Your task to perform on an android device: What's the weather going to be tomorrow? Image 0: 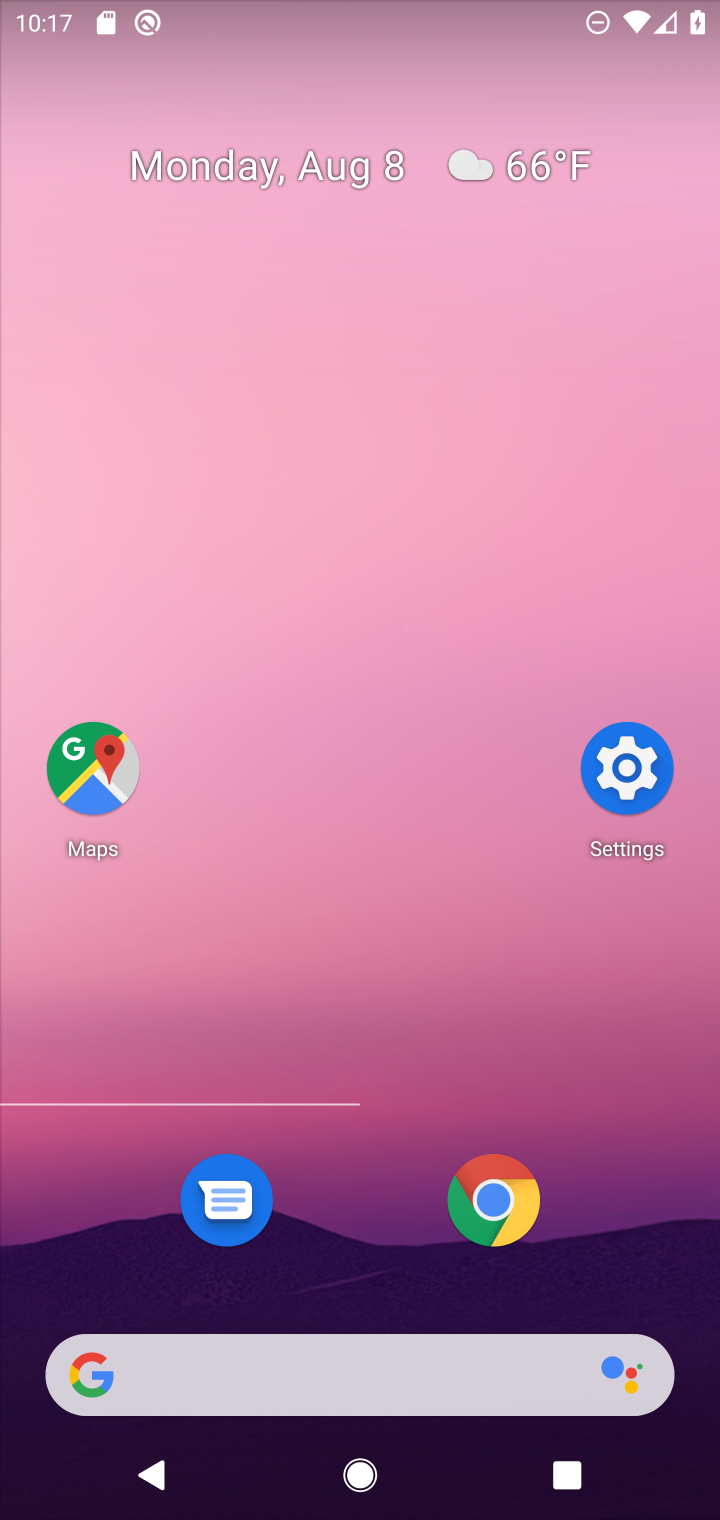
Step 0: click (239, 1361)
Your task to perform on an android device: What's the weather going to be tomorrow? Image 1: 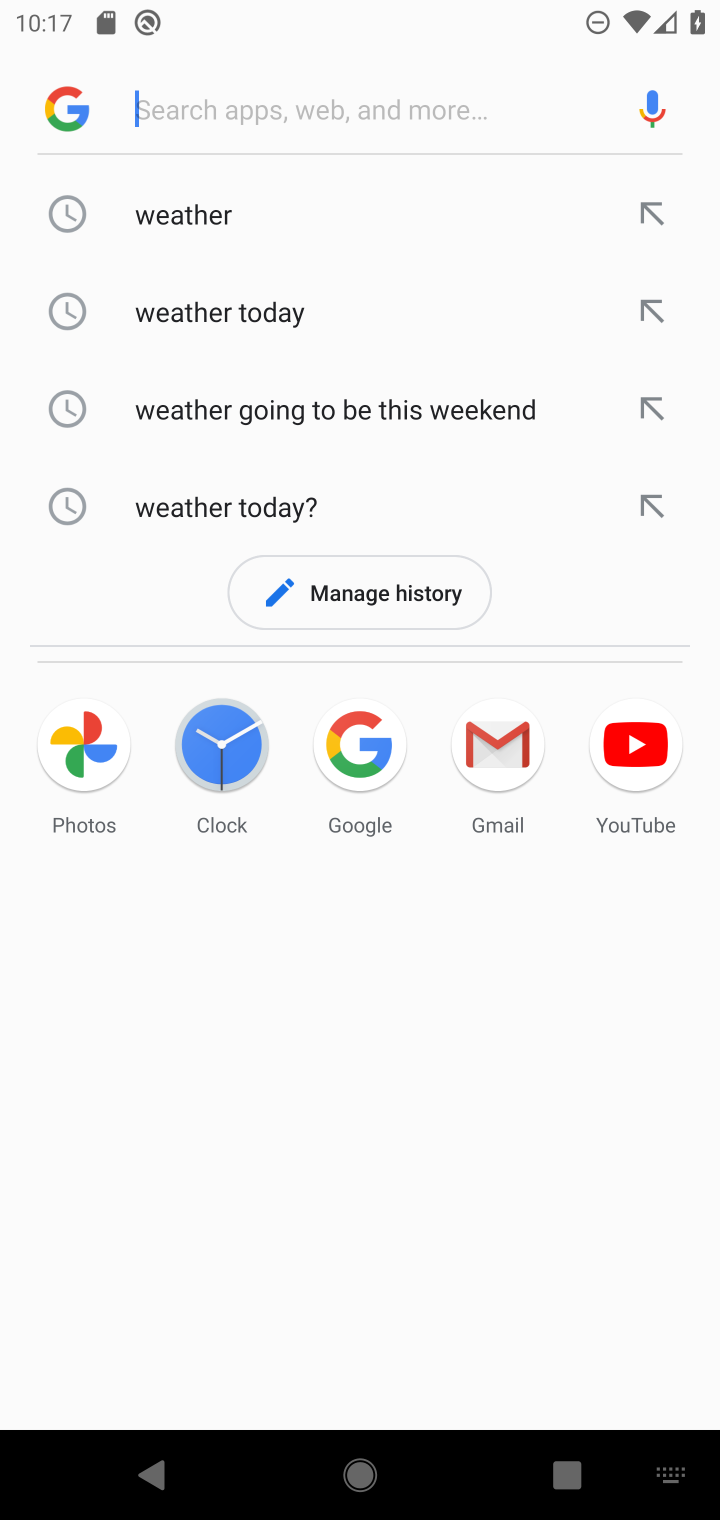
Step 1: click (650, 201)
Your task to perform on an android device: What's the weather going to be tomorrow? Image 2: 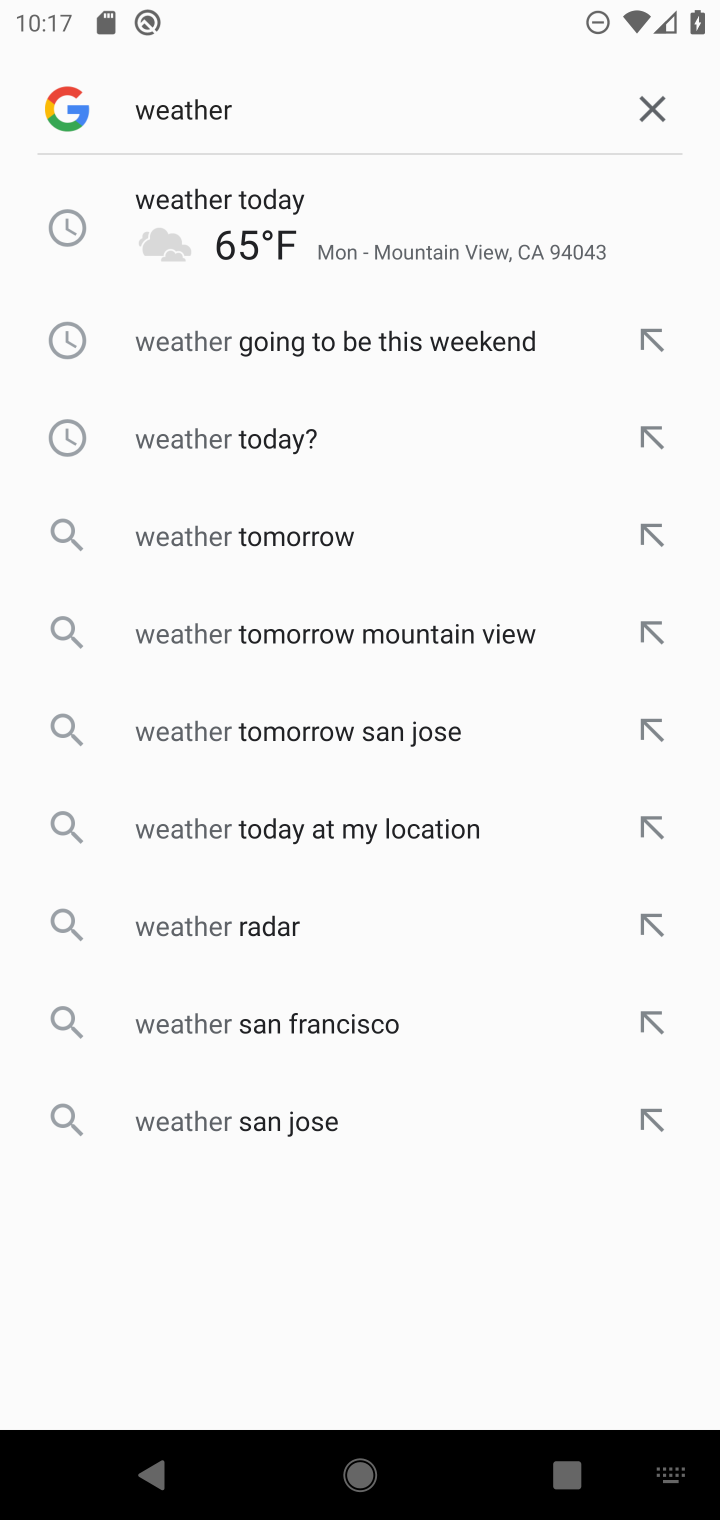
Step 2: click (330, 230)
Your task to perform on an android device: What's the weather going to be tomorrow? Image 3: 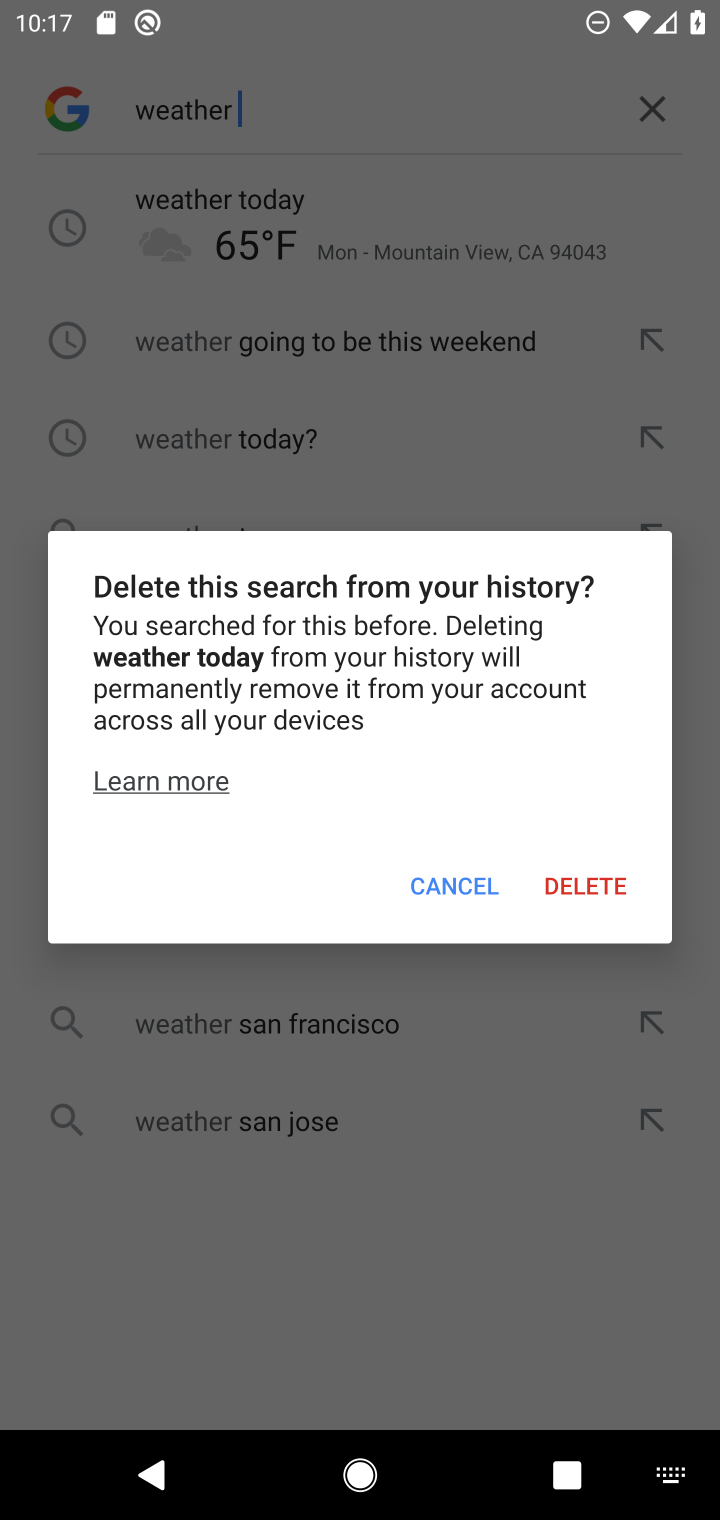
Step 3: click (456, 881)
Your task to perform on an android device: What's the weather going to be tomorrow? Image 4: 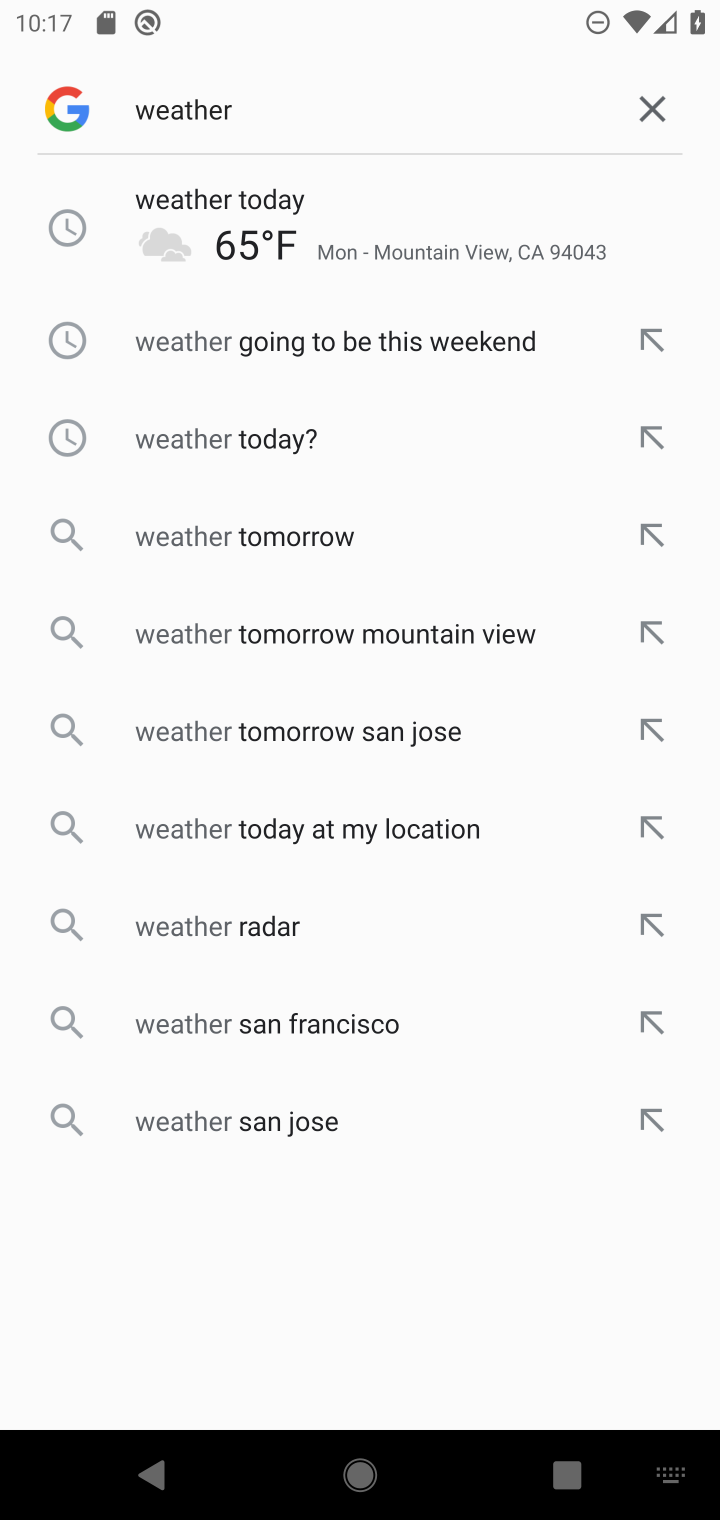
Step 4: click (654, 431)
Your task to perform on an android device: What's the weather going to be tomorrow? Image 5: 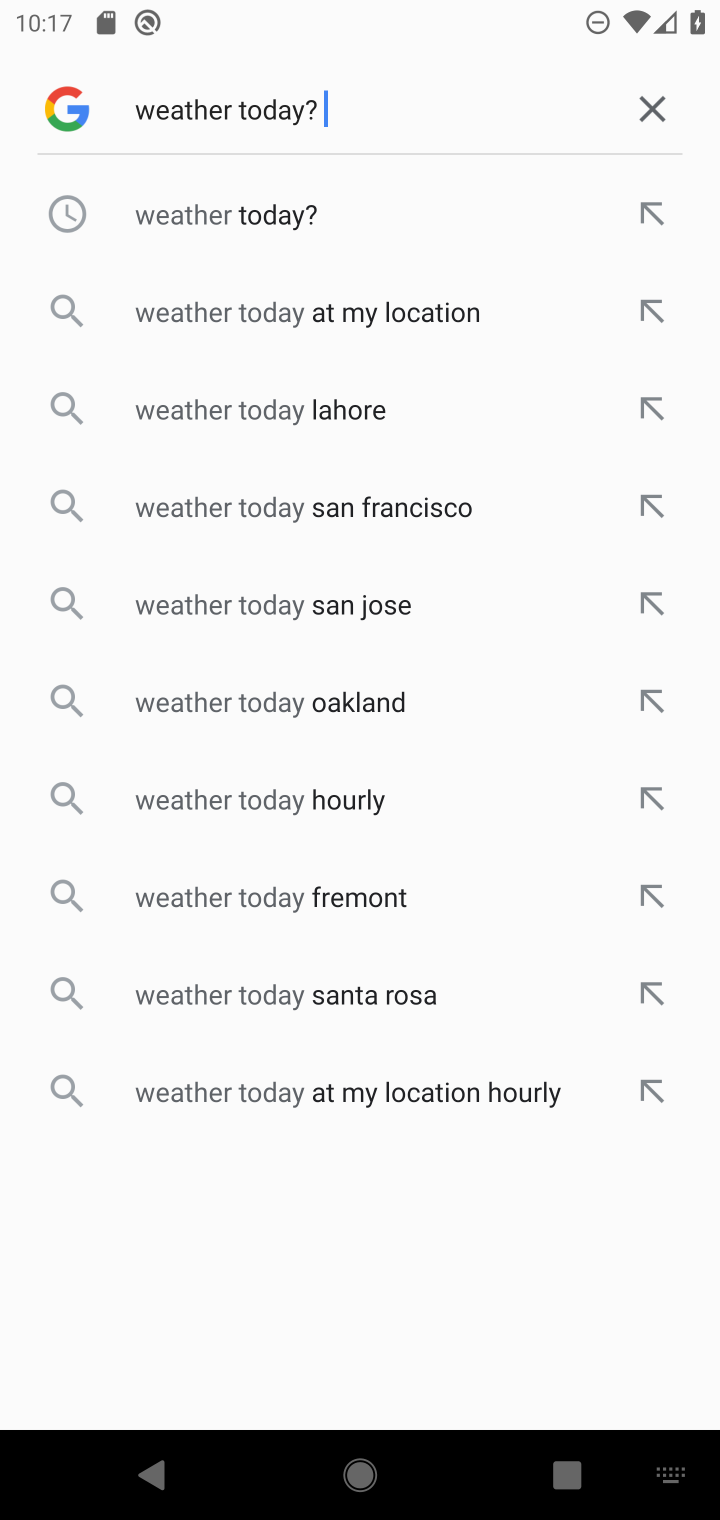
Step 5: click (650, 203)
Your task to perform on an android device: What's the weather going to be tomorrow? Image 6: 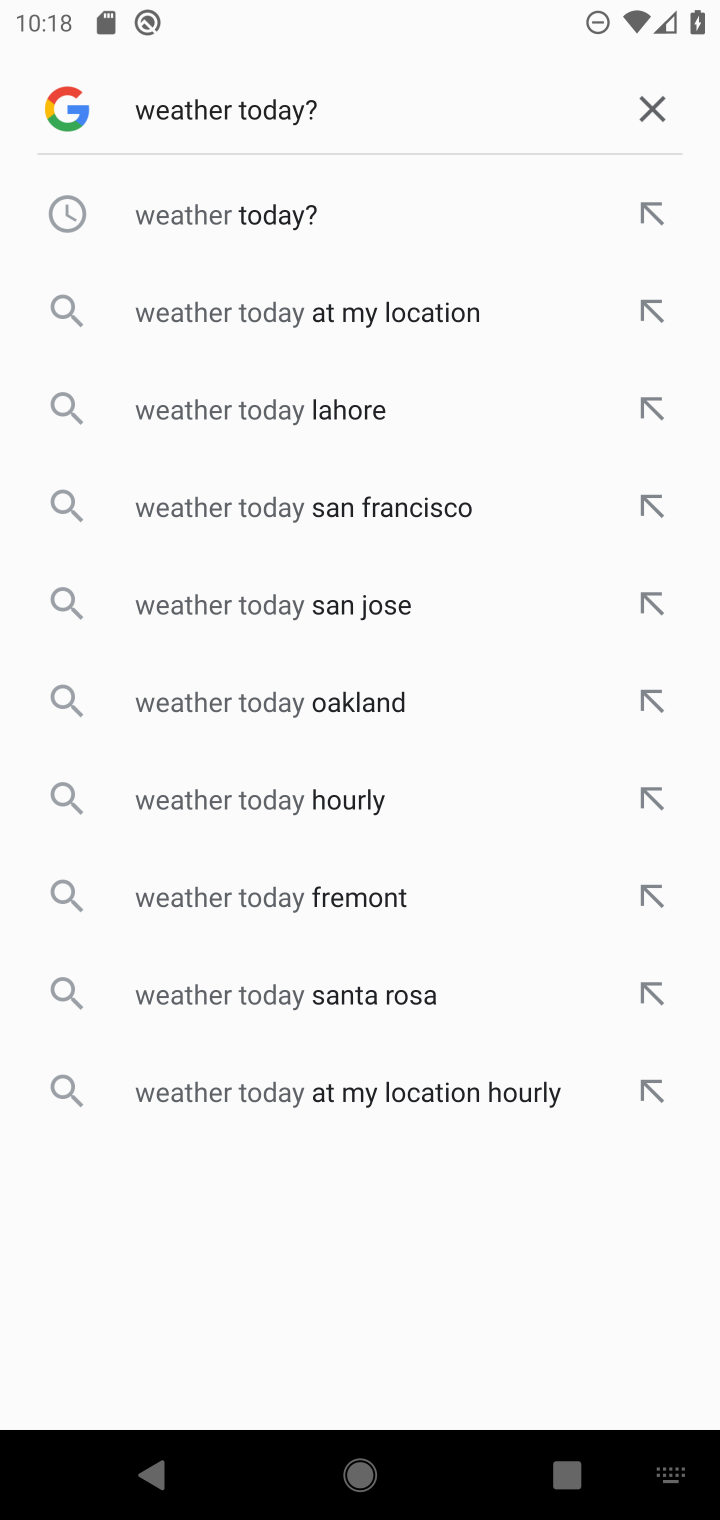
Step 6: click (650, 201)
Your task to perform on an android device: What's the weather going to be tomorrow? Image 7: 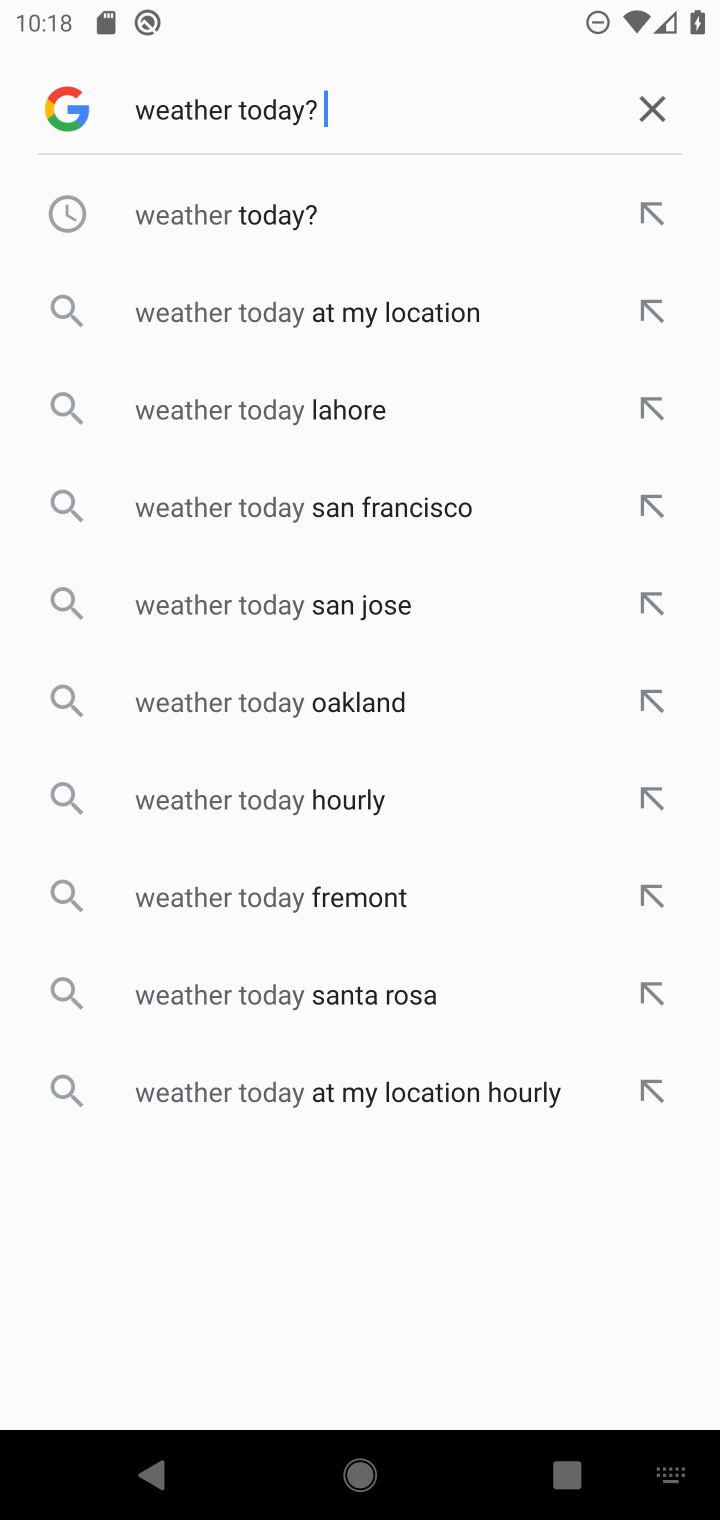
Step 7: click (643, 203)
Your task to perform on an android device: What's the weather going to be tomorrow? Image 8: 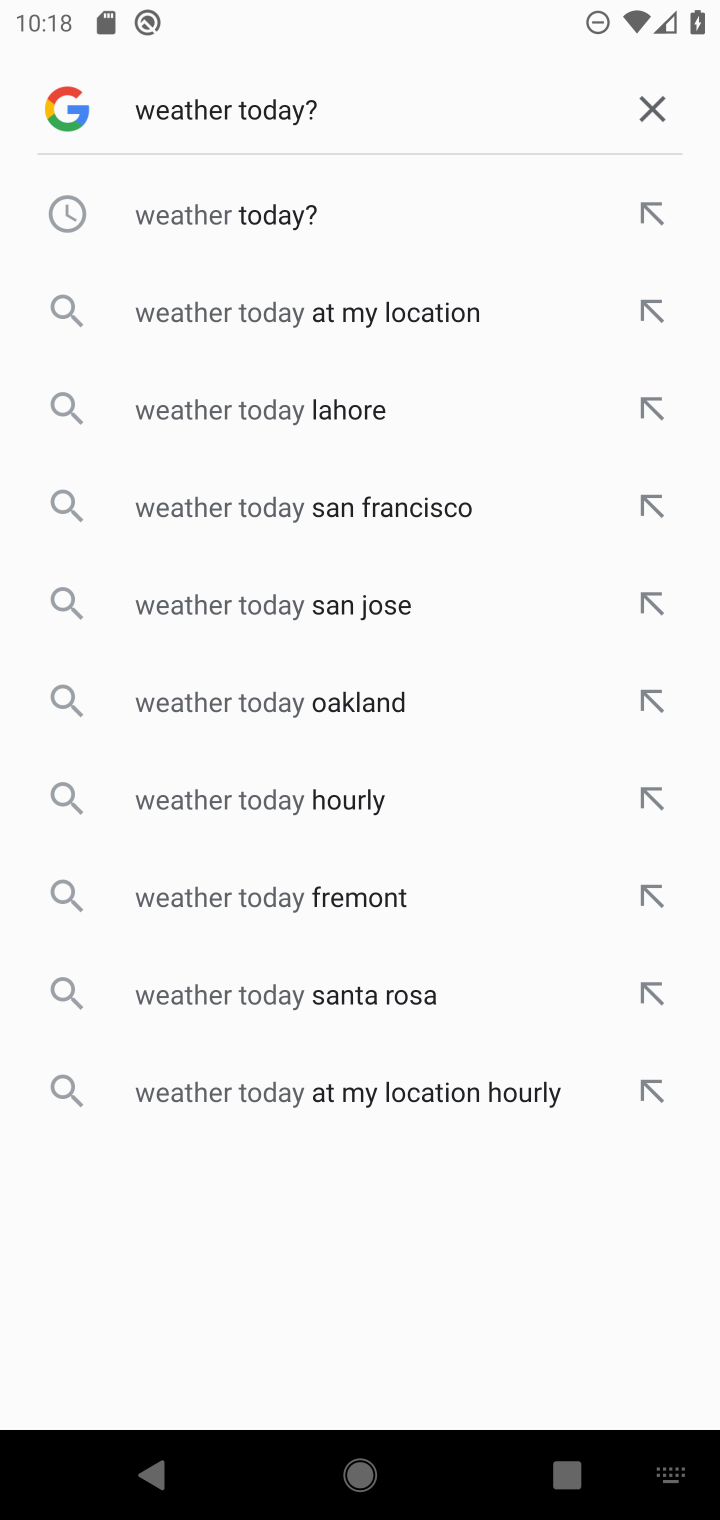
Step 8: click (643, 199)
Your task to perform on an android device: What's the weather going to be tomorrow? Image 9: 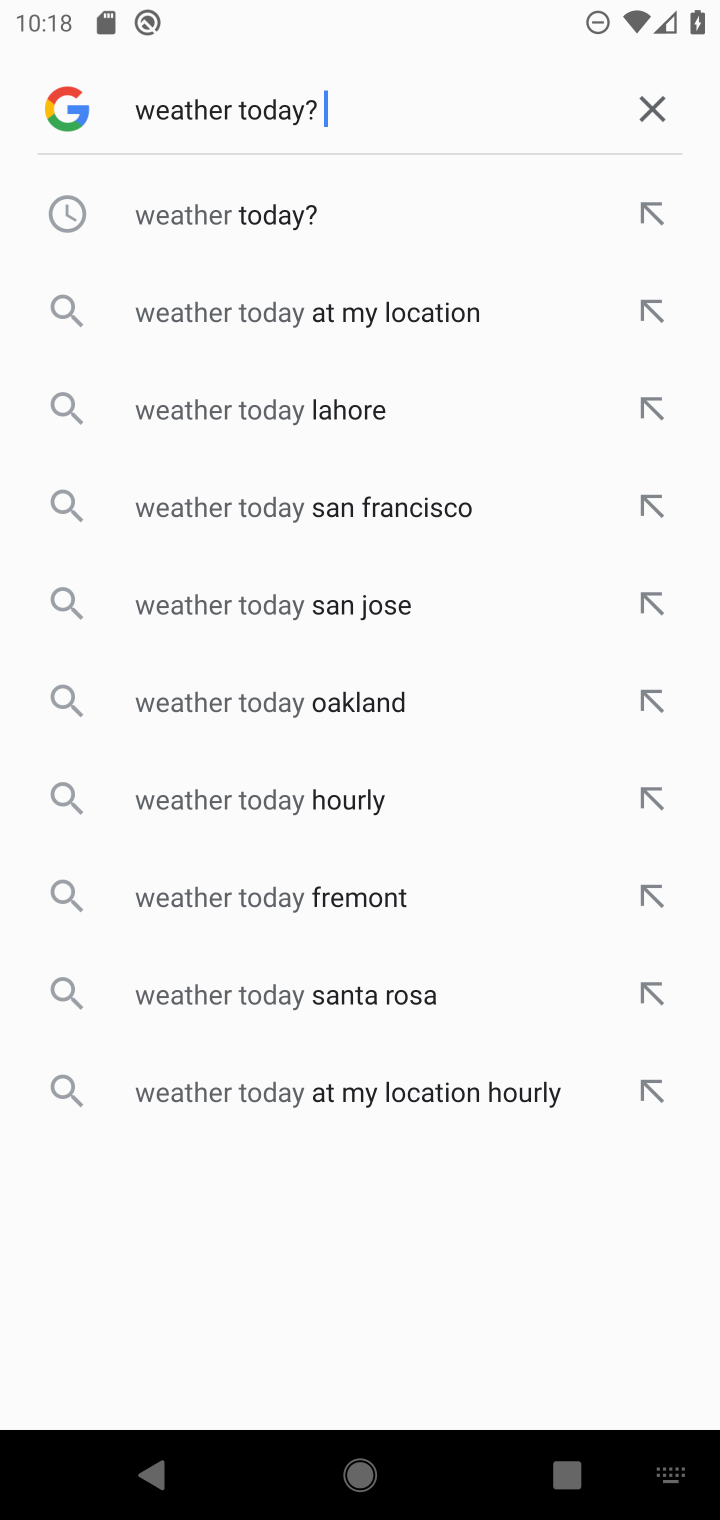
Step 9: click (646, 203)
Your task to perform on an android device: What's the weather going to be tomorrow? Image 10: 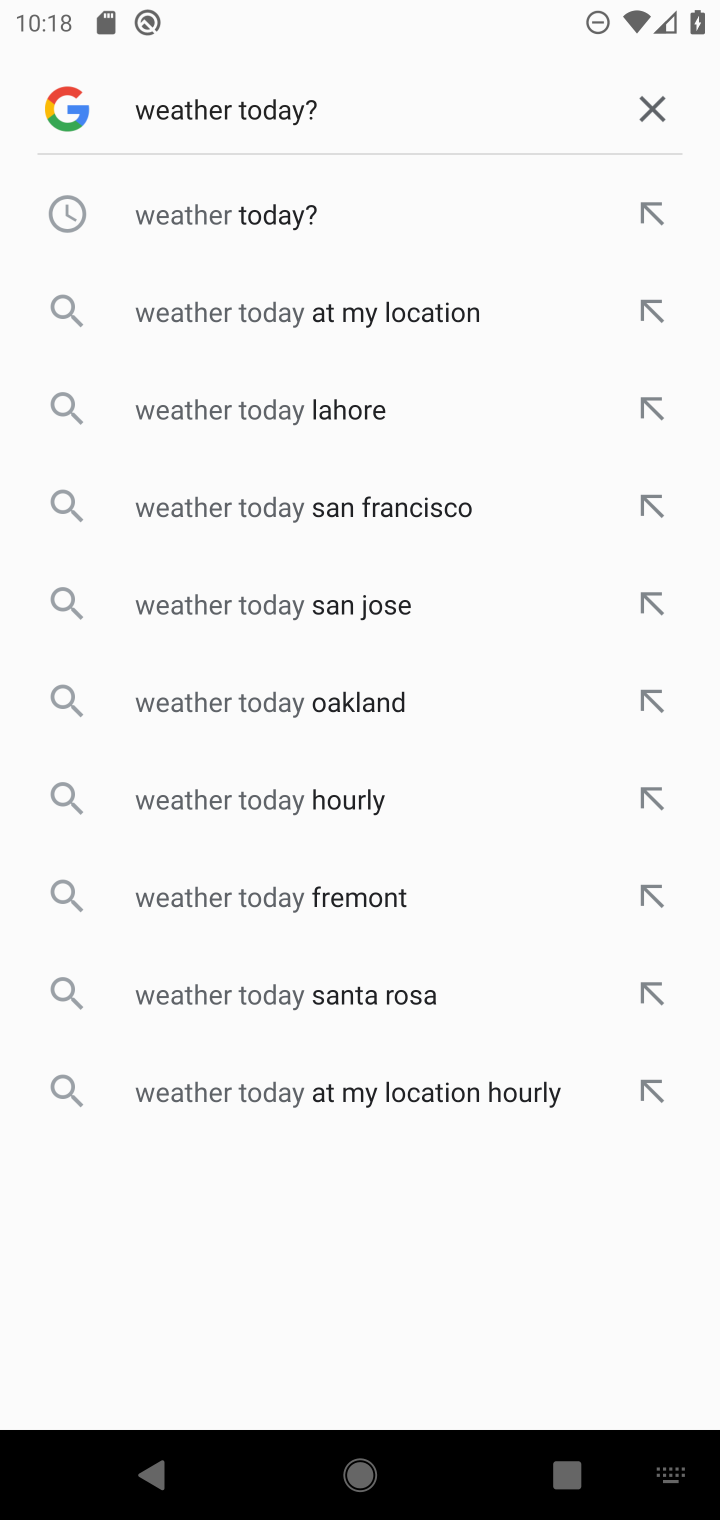
Step 10: click (646, 203)
Your task to perform on an android device: What's the weather going to be tomorrow? Image 11: 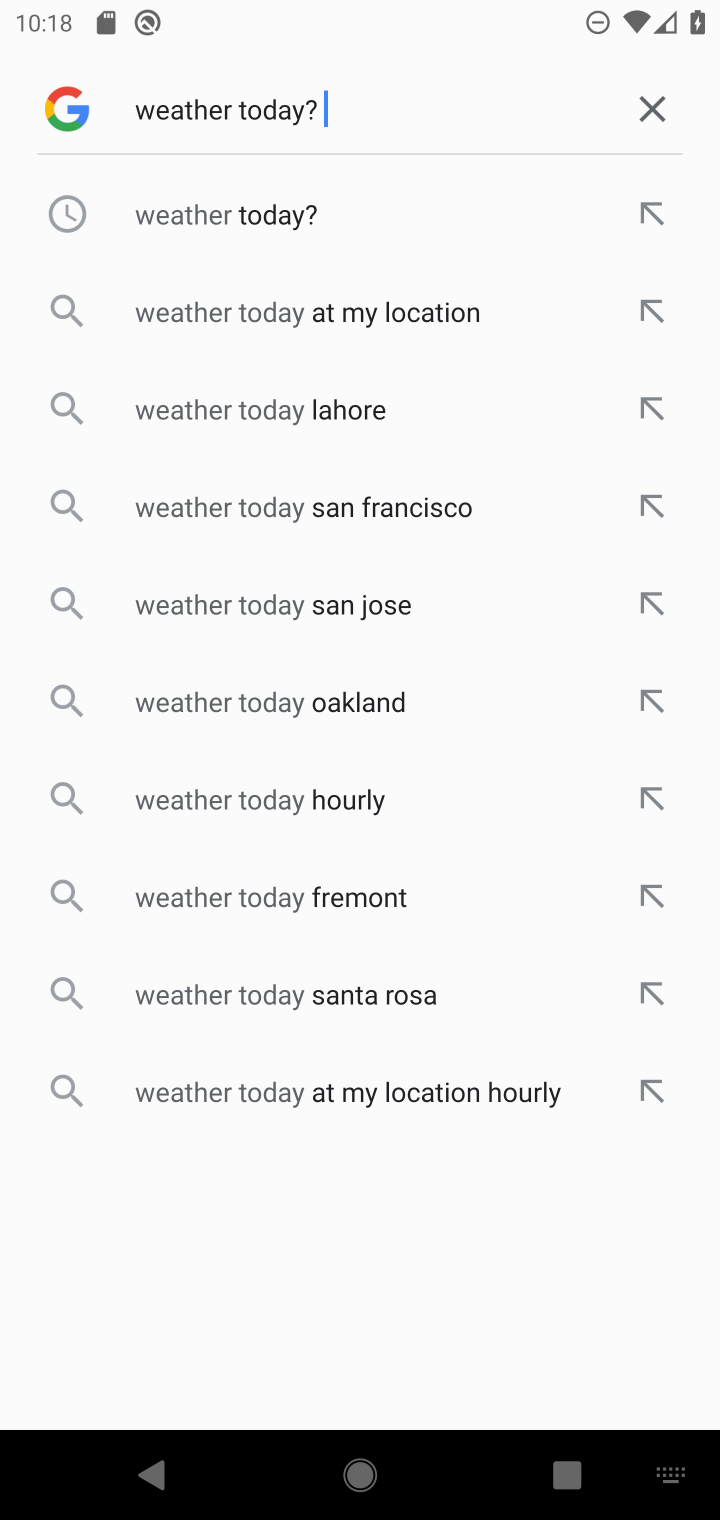
Step 11: click (254, 206)
Your task to perform on an android device: What's the weather going to be tomorrow? Image 12: 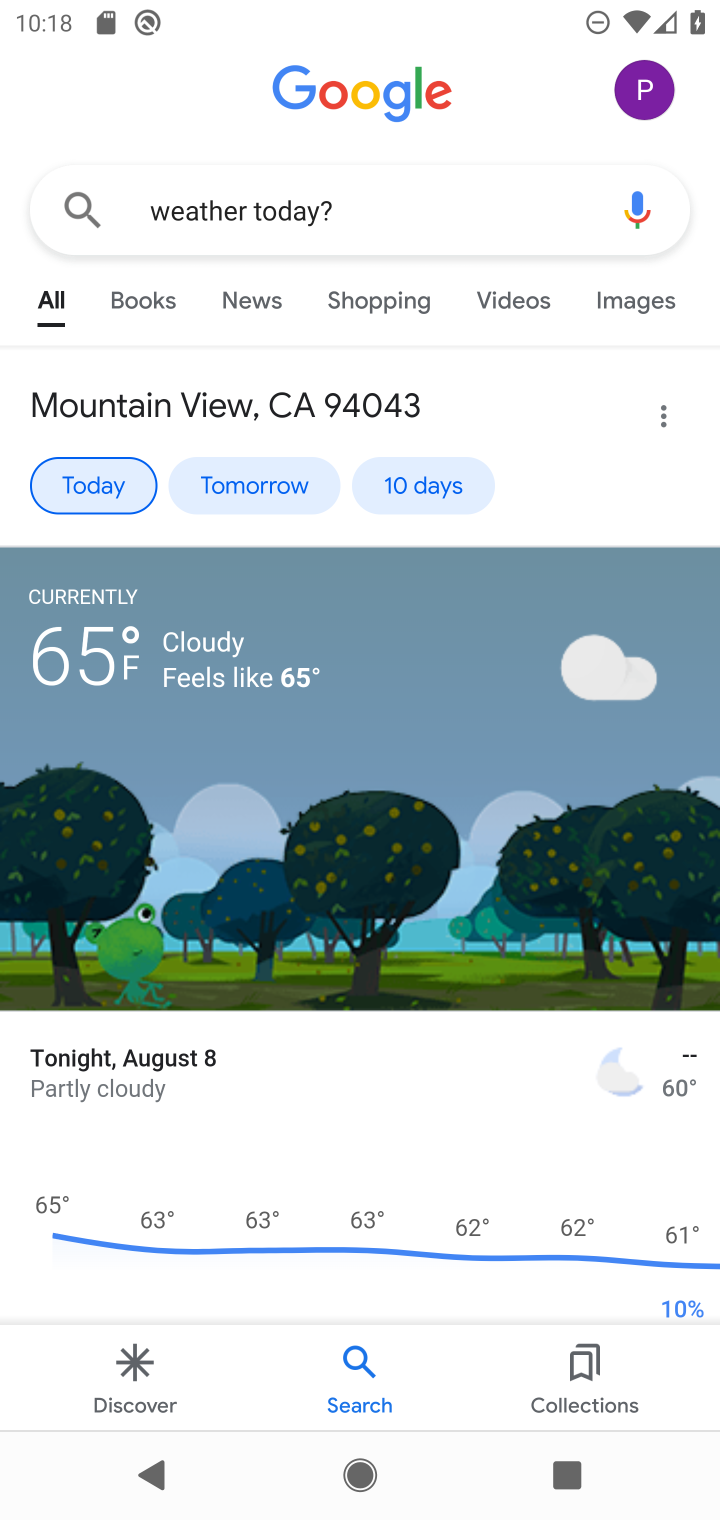
Step 12: click (267, 489)
Your task to perform on an android device: What's the weather going to be tomorrow? Image 13: 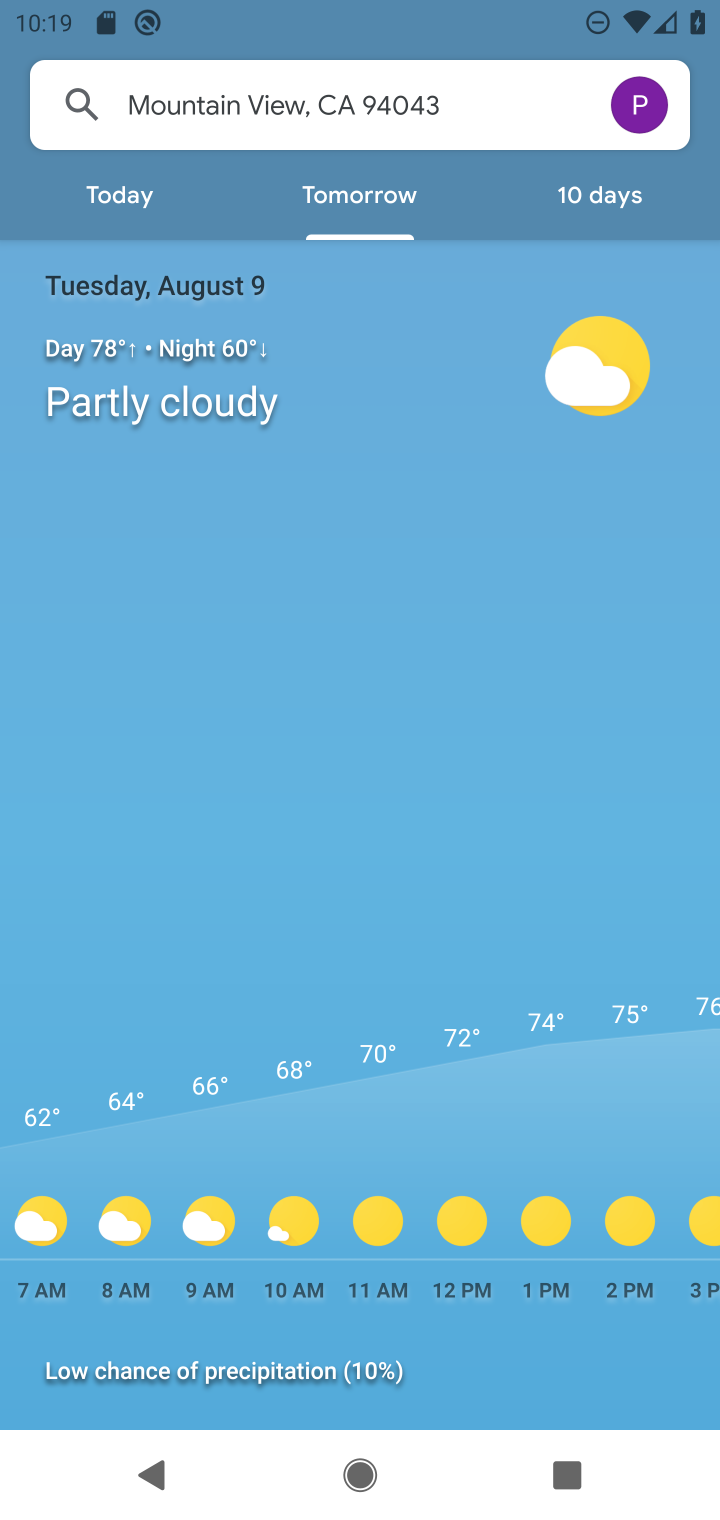
Step 13: task complete